Your task to perform on an android device: Is it going to rain tomorrow? Image 0: 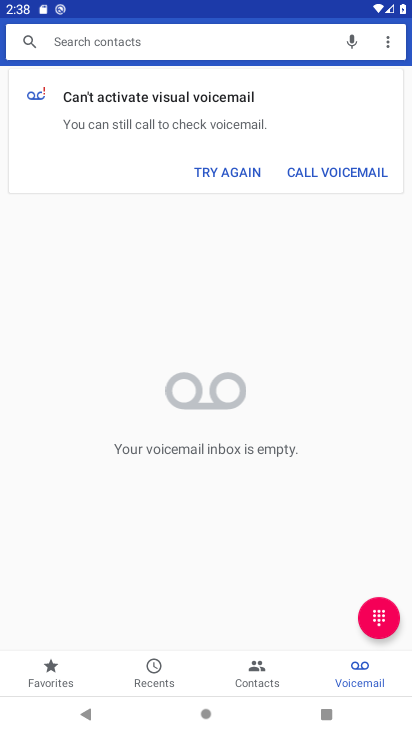
Step 0: press home button
Your task to perform on an android device: Is it going to rain tomorrow? Image 1: 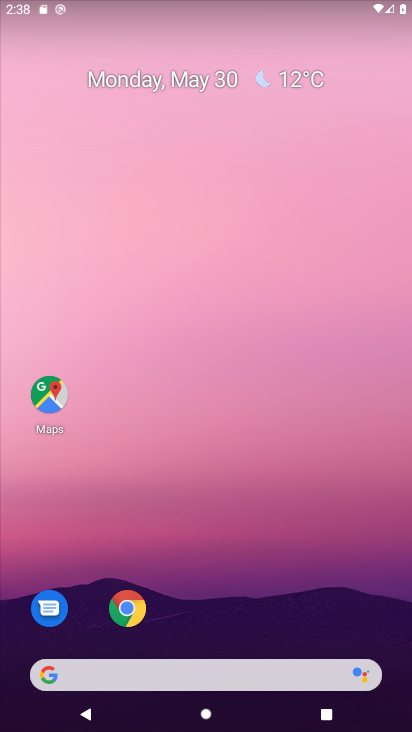
Step 1: drag from (294, 604) to (234, 4)
Your task to perform on an android device: Is it going to rain tomorrow? Image 2: 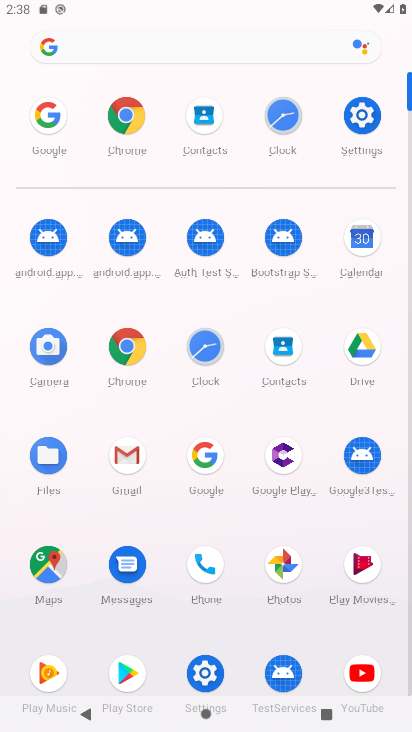
Step 2: click (215, 419)
Your task to perform on an android device: Is it going to rain tomorrow? Image 3: 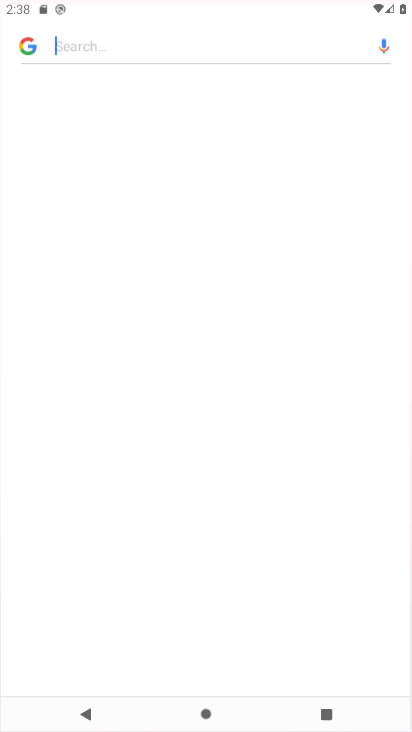
Step 3: click (211, 447)
Your task to perform on an android device: Is it going to rain tomorrow? Image 4: 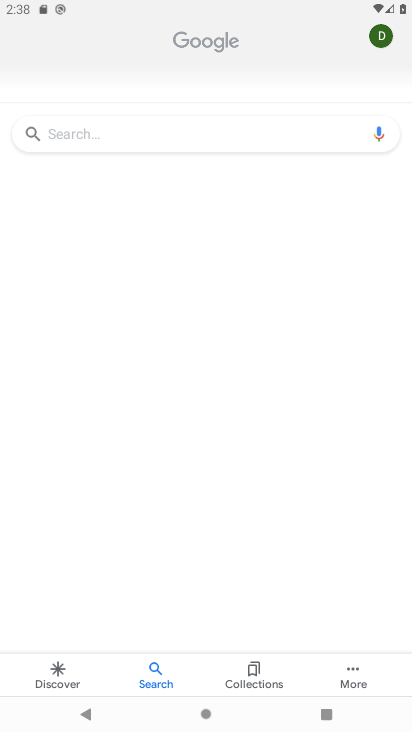
Step 4: click (114, 140)
Your task to perform on an android device: Is it going to rain tomorrow? Image 5: 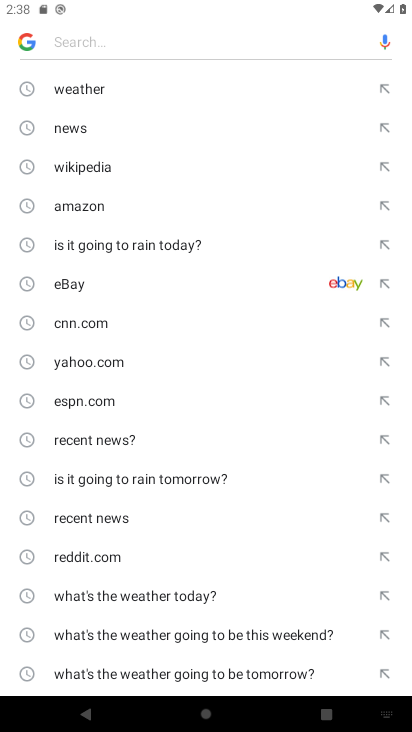
Step 5: click (91, 90)
Your task to perform on an android device: Is it going to rain tomorrow? Image 6: 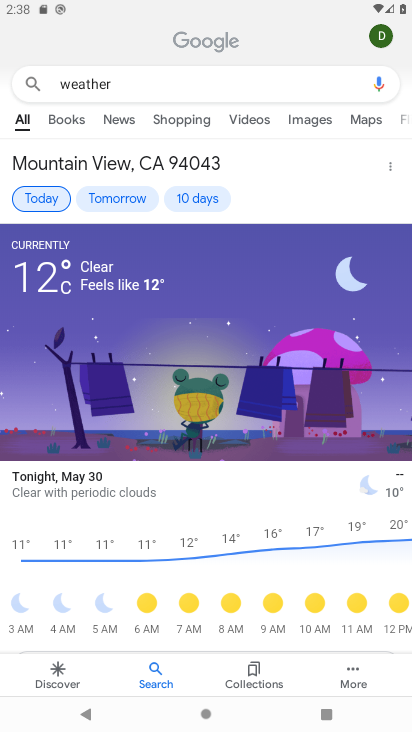
Step 6: click (117, 202)
Your task to perform on an android device: Is it going to rain tomorrow? Image 7: 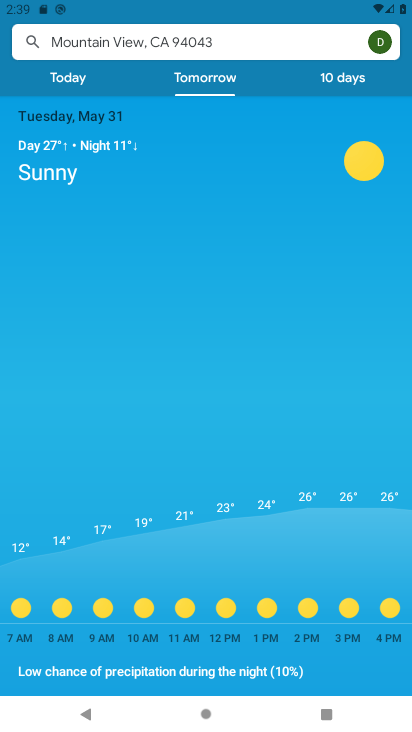
Step 7: task complete